Your task to perform on an android device: read, delete, or share a saved page in the chrome app Image 0: 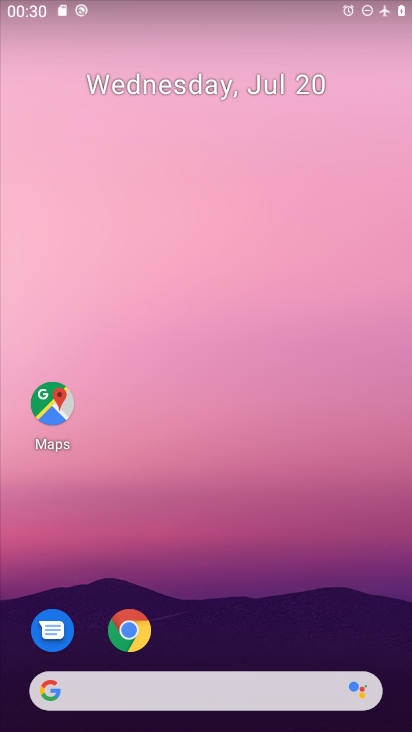
Step 0: click (142, 634)
Your task to perform on an android device: read, delete, or share a saved page in the chrome app Image 1: 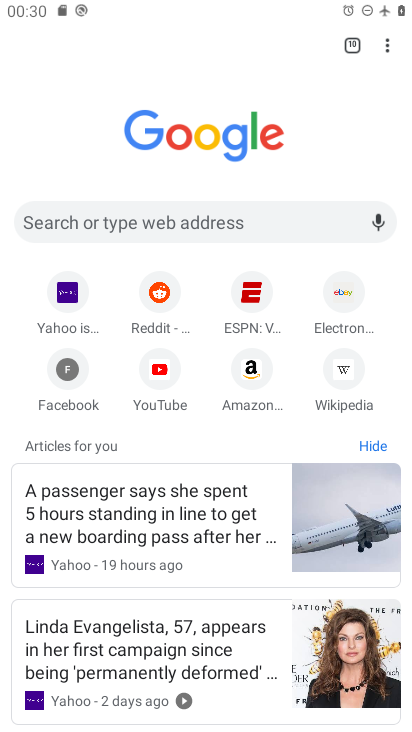
Step 1: click (384, 45)
Your task to perform on an android device: read, delete, or share a saved page in the chrome app Image 2: 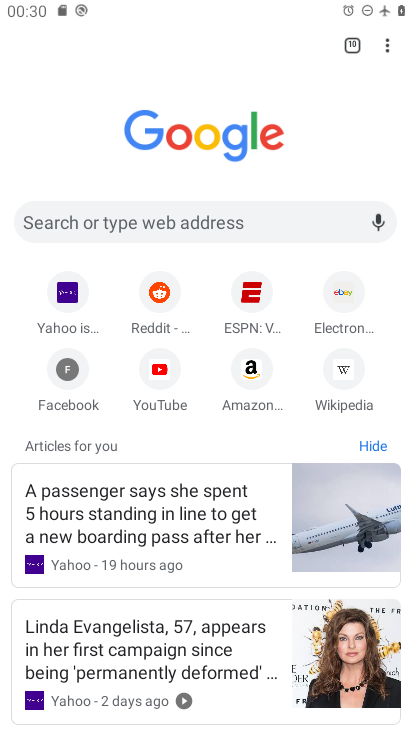
Step 2: drag from (387, 49) to (255, 293)
Your task to perform on an android device: read, delete, or share a saved page in the chrome app Image 3: 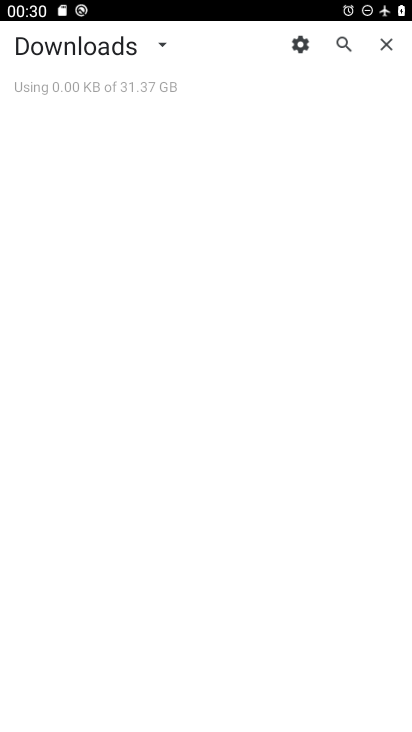
Step 3: click (158, 50)
Your task to perform on an android device: read, delete, or share a saved page in the chrome app Image 4: 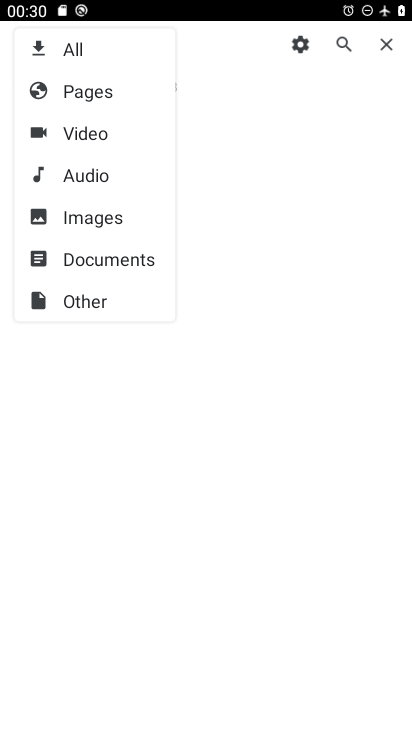
Step 4: click (98, 105)
Your task to perform on an android device: read, delete, or share a saved page in the chrome app Image 5: 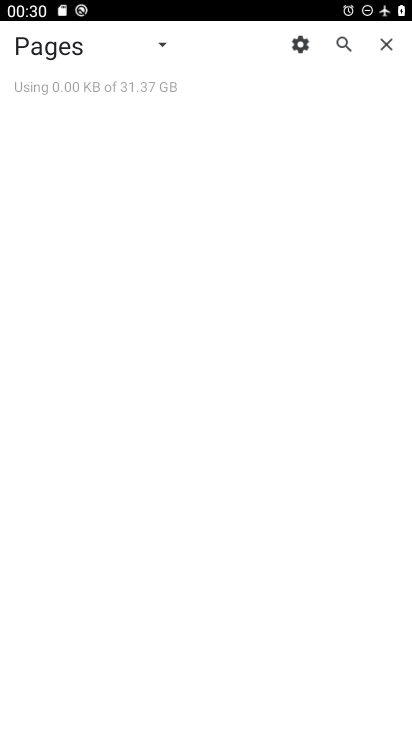
Step 5: task complete